Your task to perform on an android device: Clear the shopping cart on costco. Image 0: 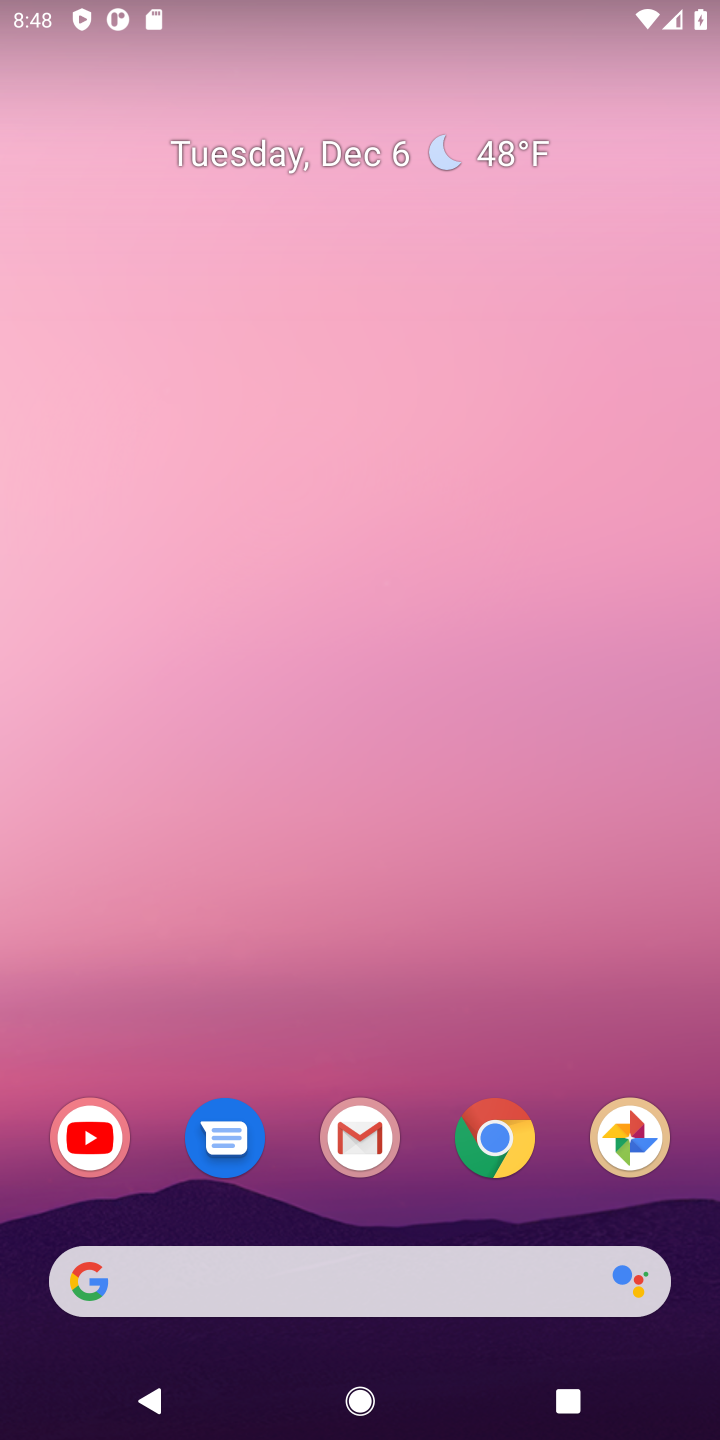
Step 0: click (493, 1131)
Your task to perform on an android device: Clear the shopping cart on costco. Image 1: 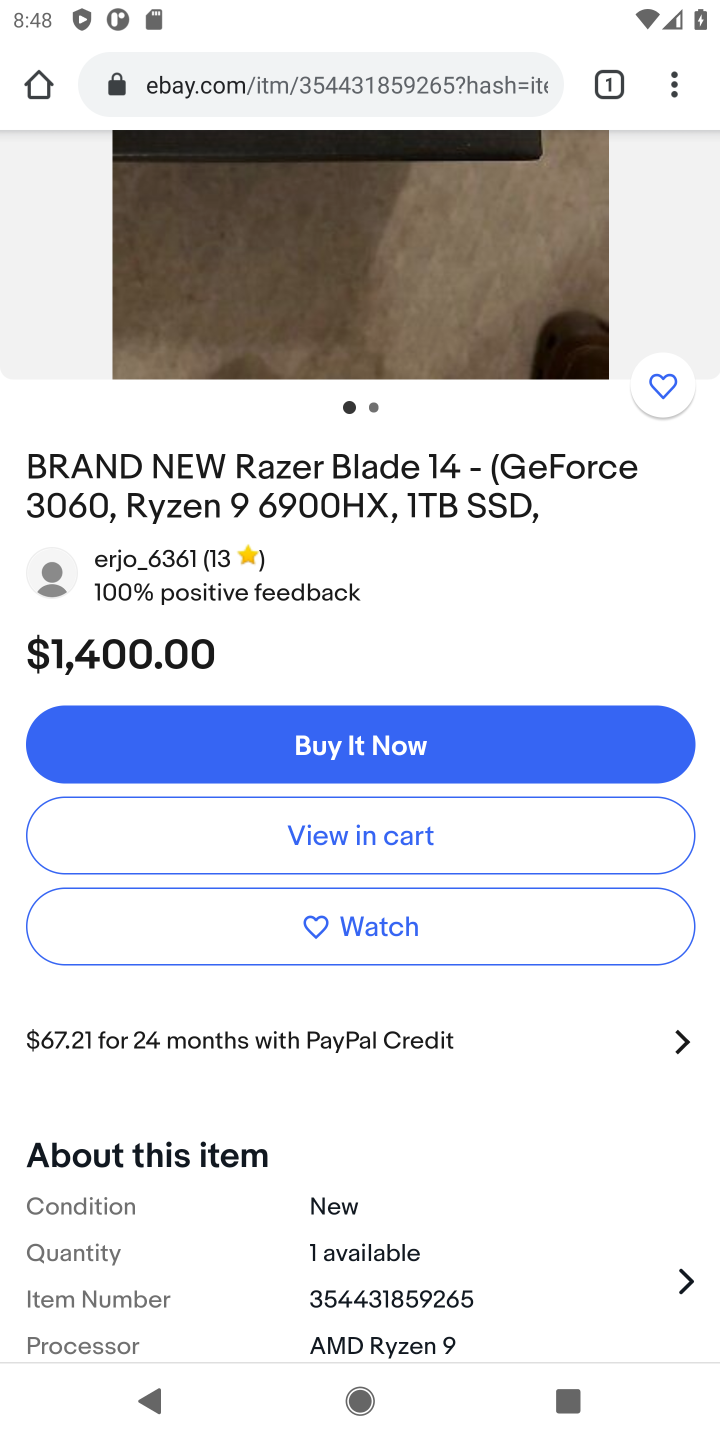
Step 1: click (306, 80)
Your task to perform on an android device: Clear the shopping cart on costco. Image 2: 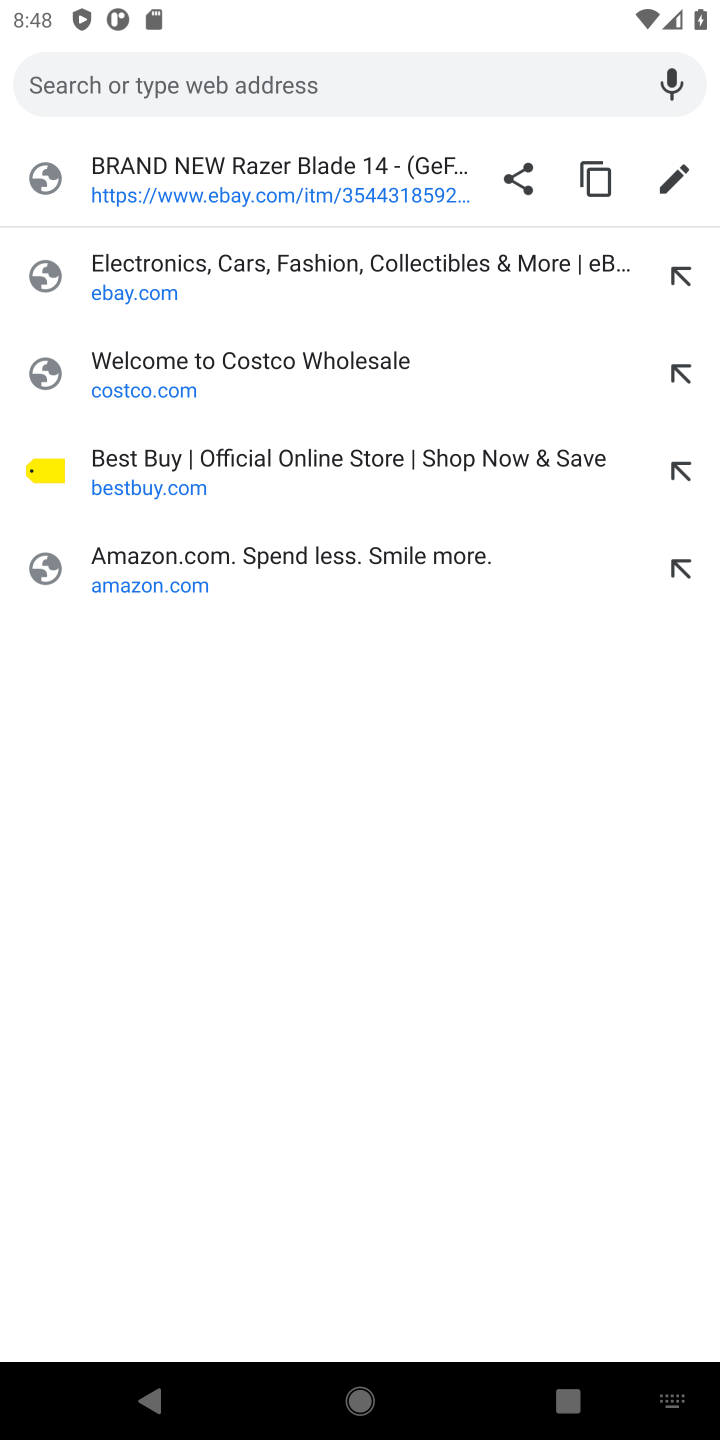
Step 2: click (122, 378)
Your task to perform on an android device: Clear the shopping cart on costco. Image 3: 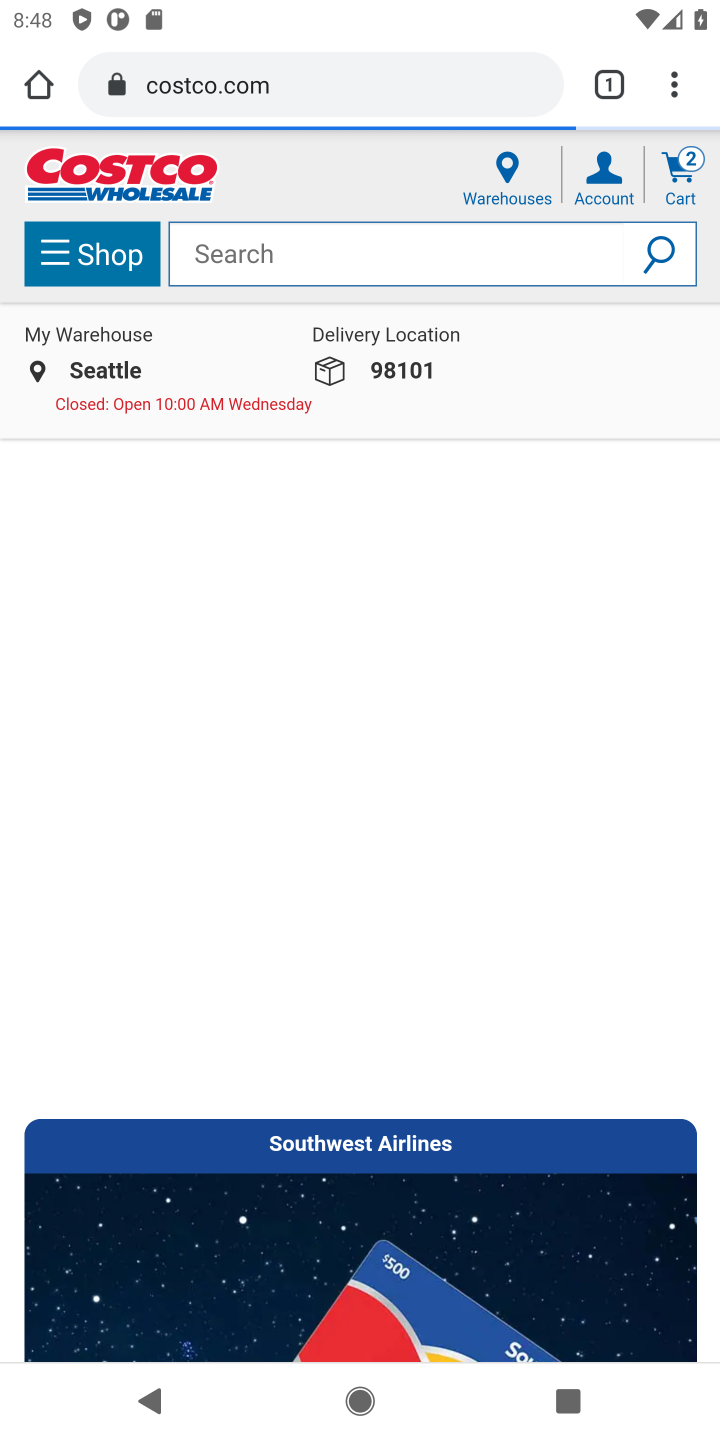
Step 3: click (681, 178)
Your task to perform on an android device: Clear the shopping cart on costco. Image 4: 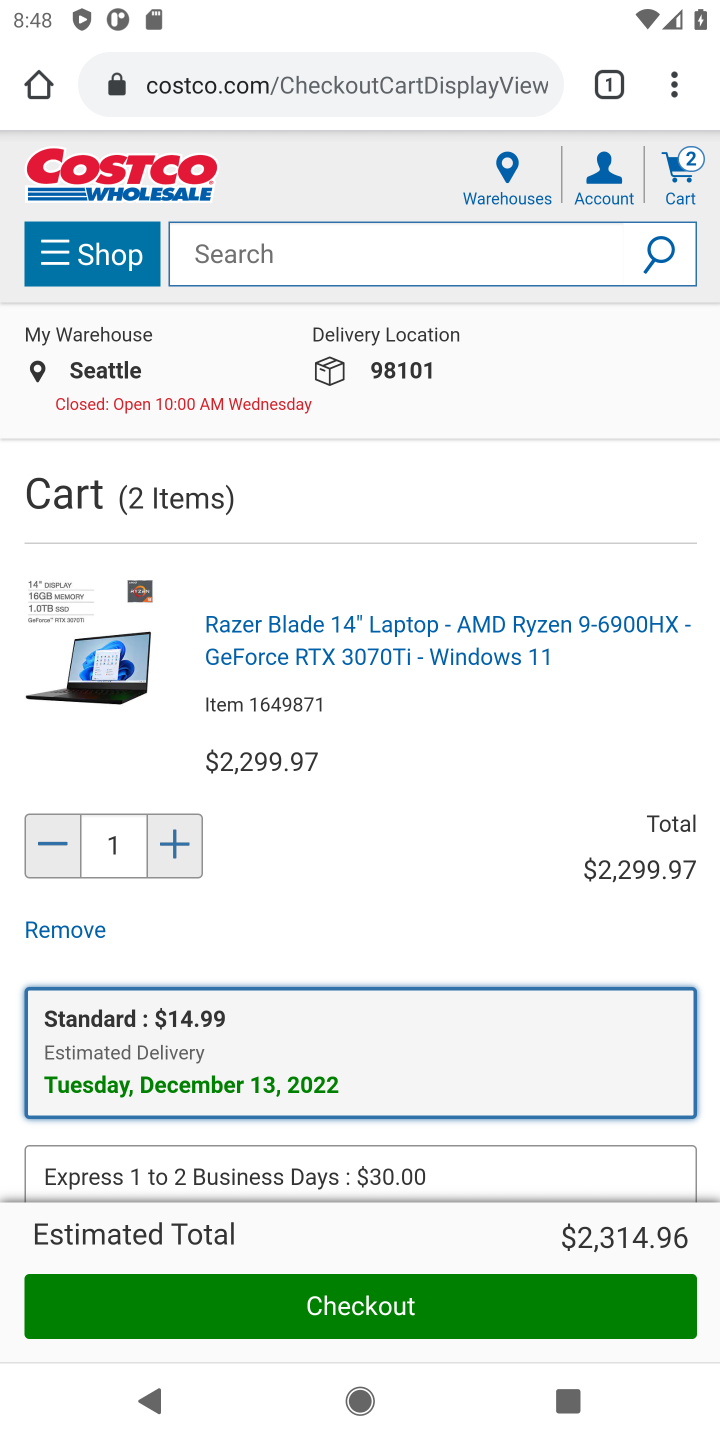
Step 4: drag from (445, 868) to (411, 374)
Your task to perform on an android device: Clear the shopping cart on costco. Image 5: 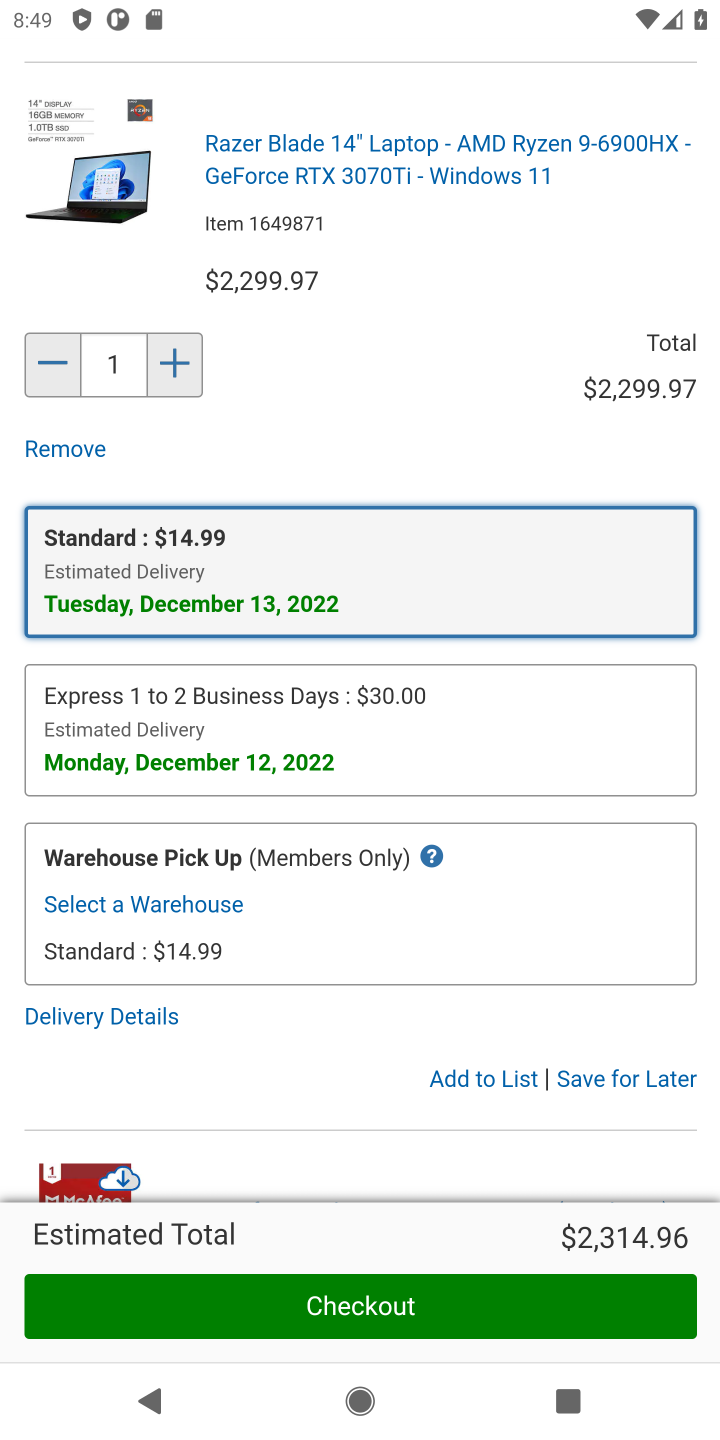
Step 5: click (628, 1089)
Your task to perform on an android device: Clear the shopping cart on costco. Image 6: 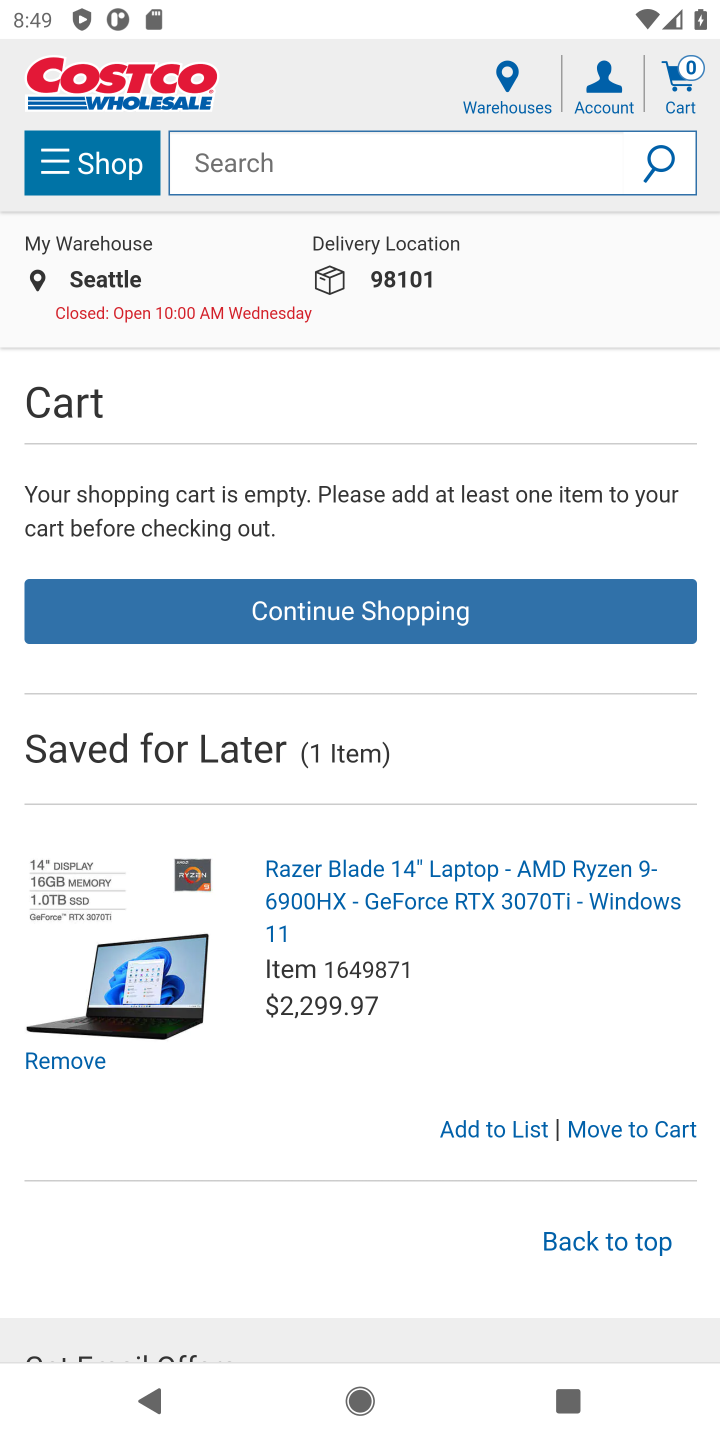
Step 6: task complete